Your task to perform on an android device: Show me my notifications Image 0: 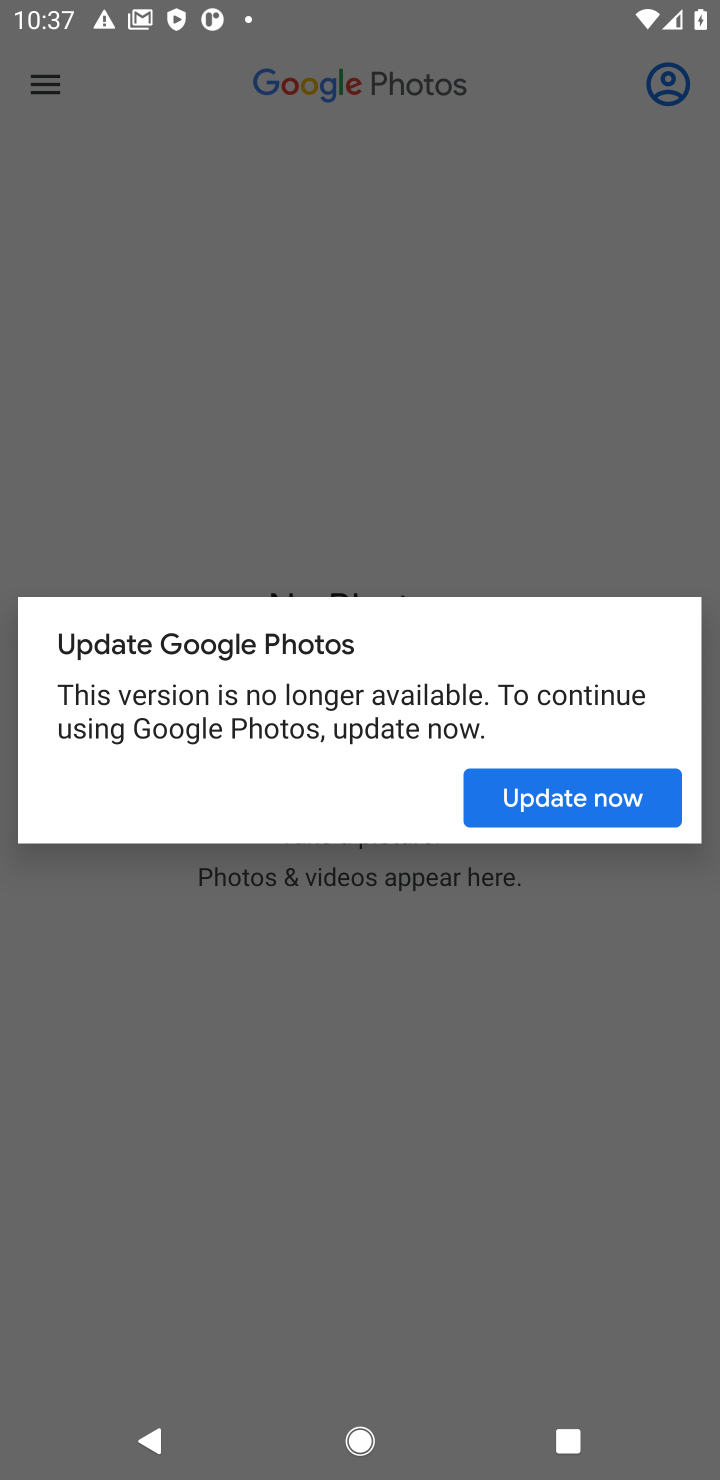
Step 0: press home button
Your task to perform on an android device: Show me my notifications Image 1: 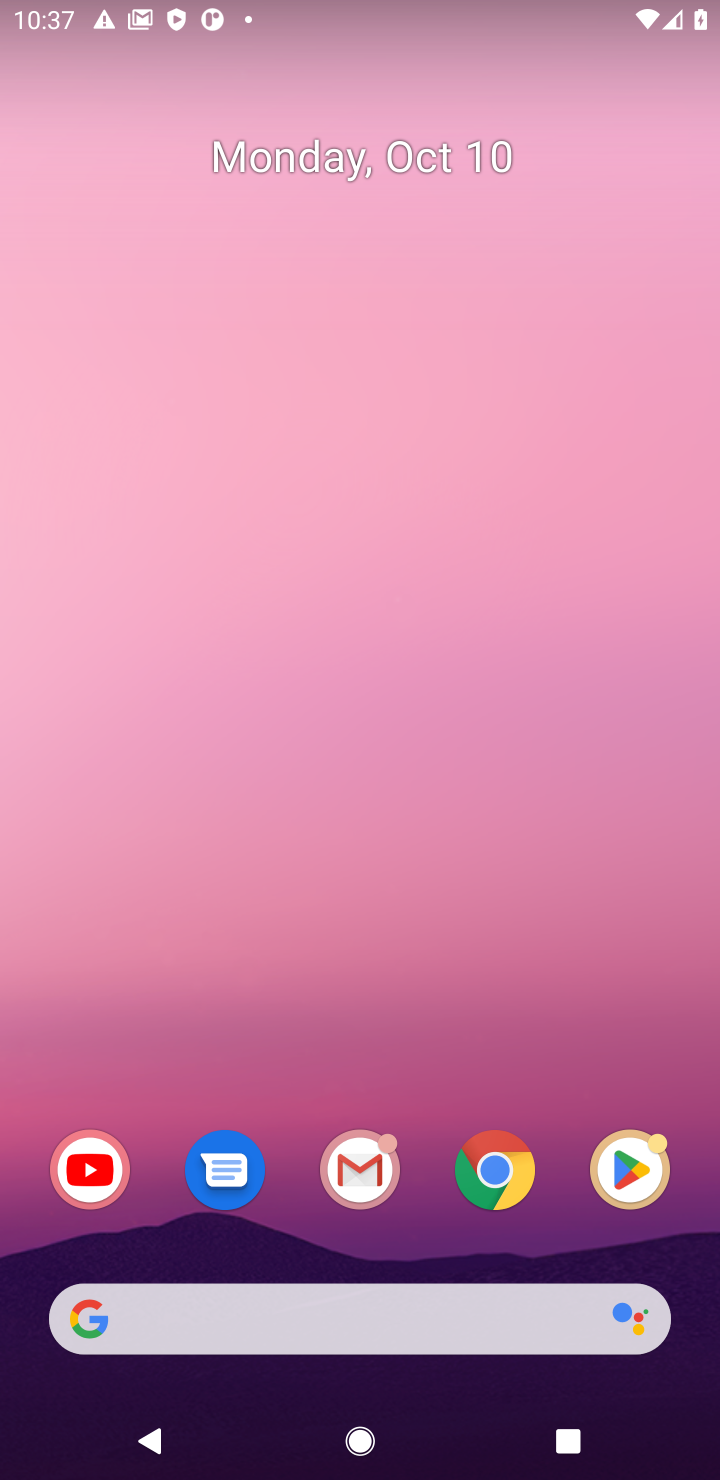
Step 1: task complete